Your task to perform on an android device: Go to Maps Image 0: 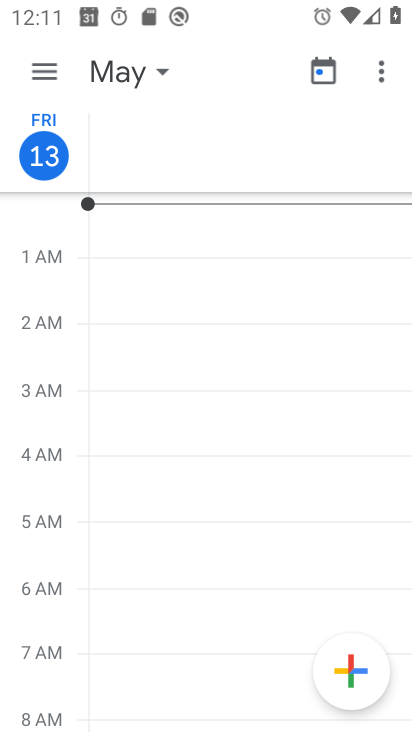
Step 0: press home button
Your task to perform on an android device: Go to Maps Image 1: 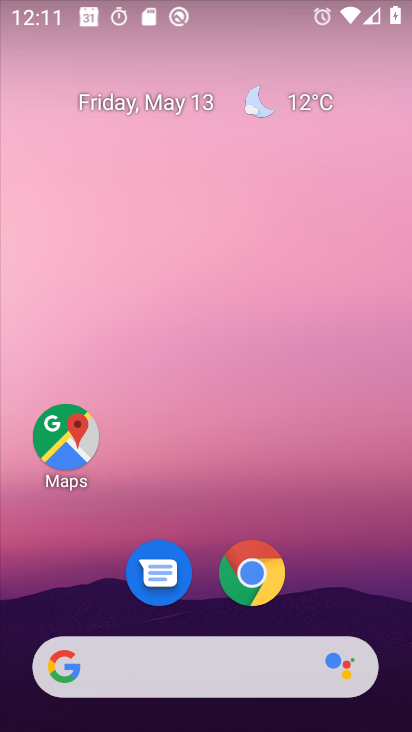
Step 1: click (60, 437)
Your task to perform on an android device: Go to Maps Image 2: 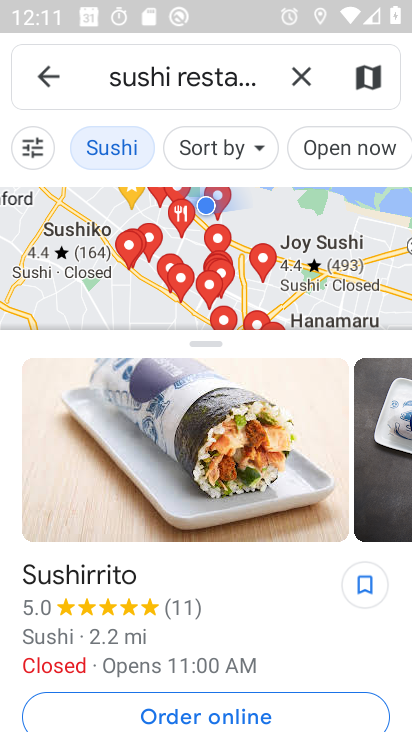
Step 2: click (41, 79)
Your task to perform on an android device: Go to Maps Image 3: 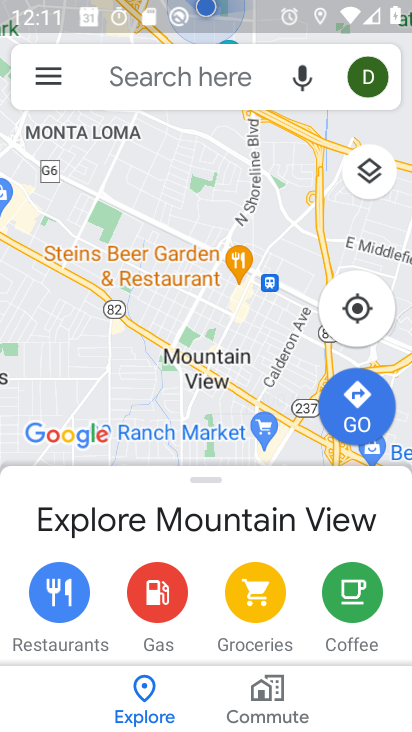
Step 3: task complete